Your task to perform on an android device: turn off smart reply in the gmail app Image 0: 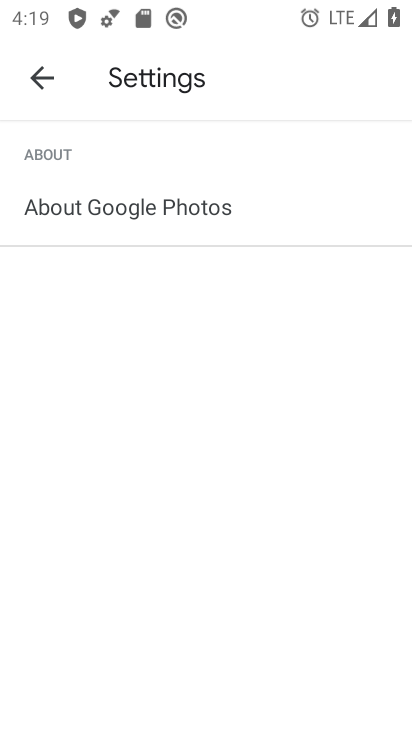
Step 0: press home button
Your task to perform on an android device: turn off smart reply in the gmail app Image 1: 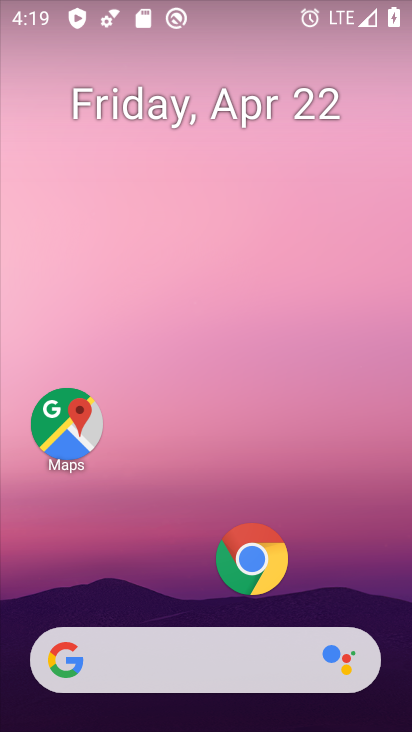
Step 1: drag from (173, 594) to (256, 126)
Your task to perform on an android device: turn off smart reply in the gmail app Image 2: 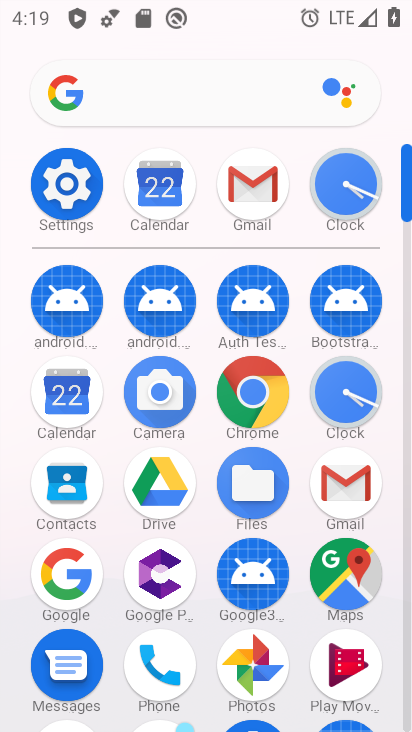
Step 2: click (348, 480)
Your task to perform on an android device: turn off smart reply in the gmail app Image 3: 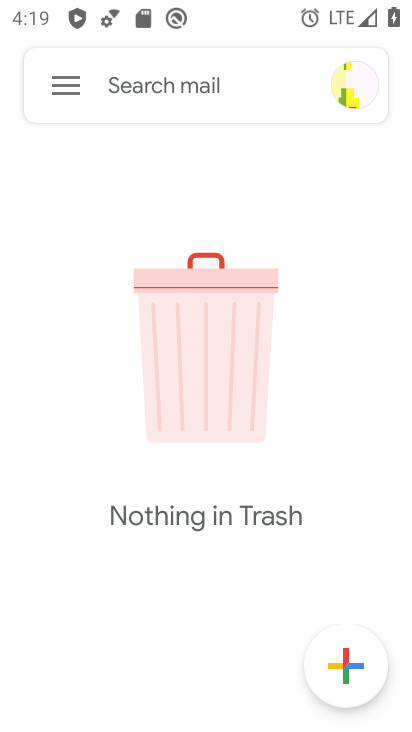
Step 3: click (62, 71)
Your task to perform on an android device: turn off smart reply in the gmail app Image 4: 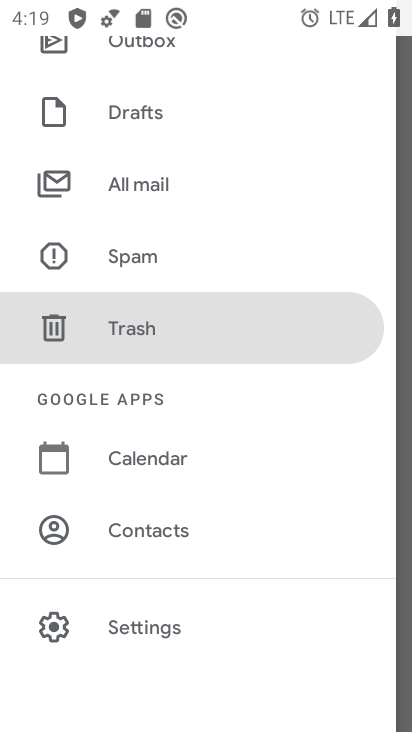
Step 4: click (138, 622)
Your task to perform on an android device: turn off smart reply in the gmail app Image 5: 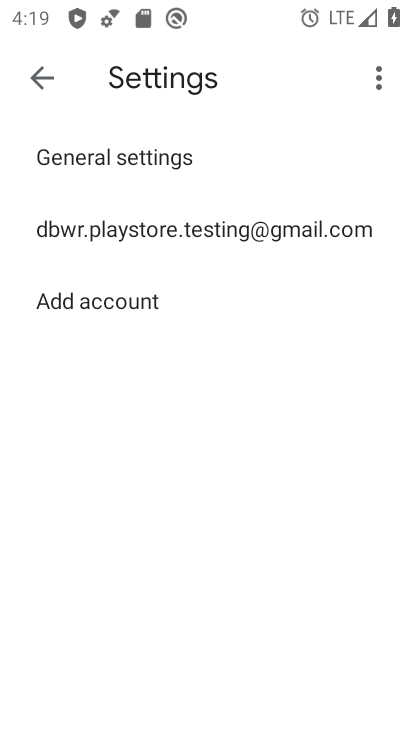
Step 5: click (144, 223)
Your task to perform on an android device: turn off smart reply in the gmail app Image 6: 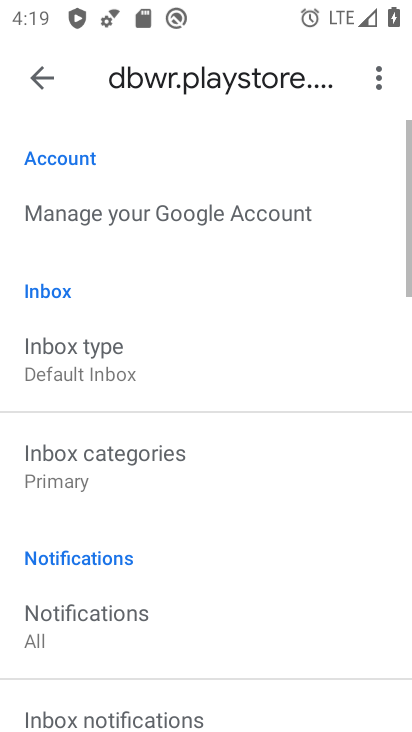
Step 6: drag from (109, 607) to (140, 281)
Your task to perform on an android device: turn off smart reply in the gmail app Image 7: 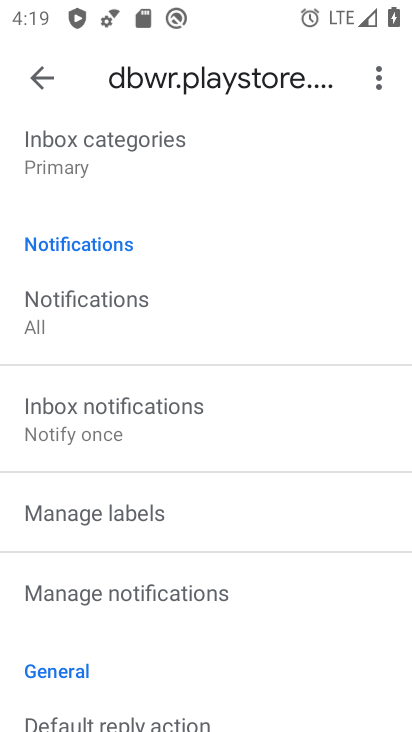
Step 7: drag from (137, 604) to (177, 335)
Your task to perform on an android device: turn off smart reply in the gmail app Image 8: 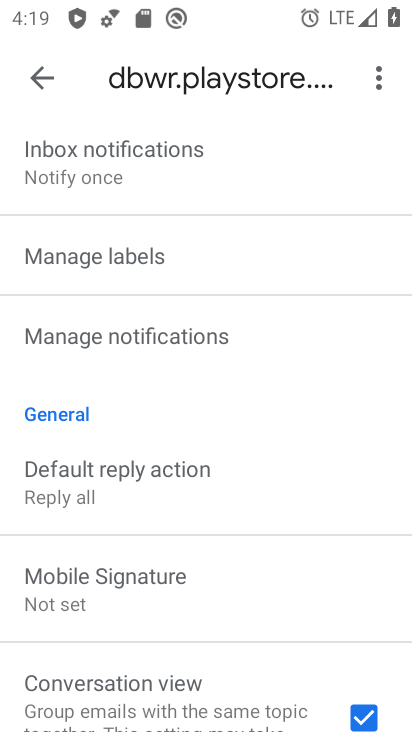
Step 8: drag from (169, 646) to (240, 249)
Your task to perform on an android device: turn off smart reply in the gmail app Image 9: 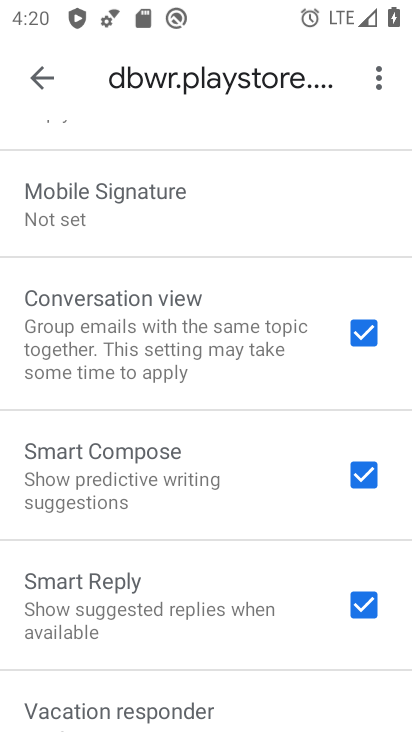
Step 9: click (348, 610)
Your task to perform on an android device: turn off smart reply in the gmail app Image 10: 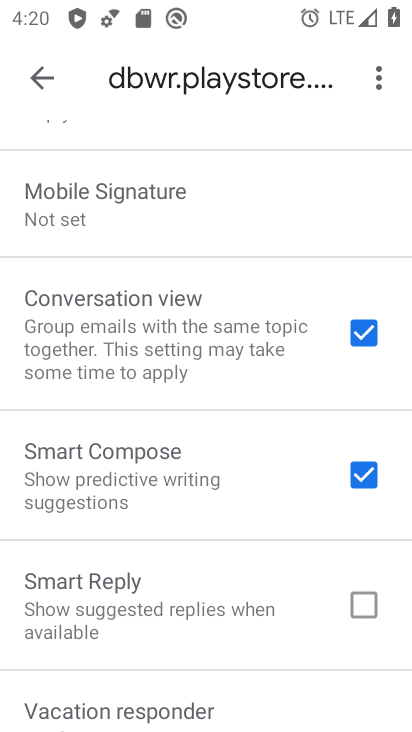
Step 10: task complete